Your task to perform on an android device: stop showing notifications on the lock screen Image 0: 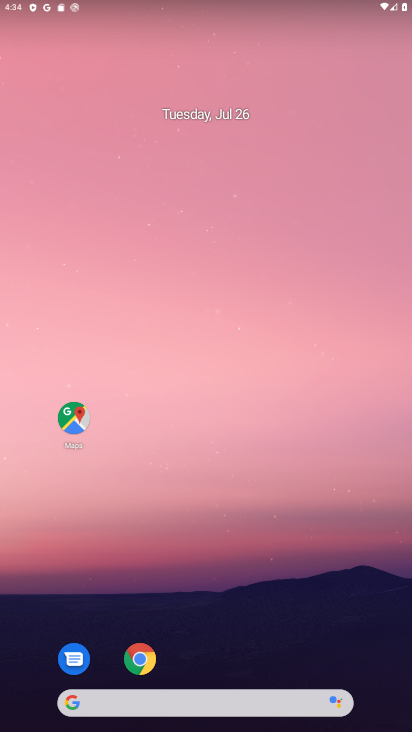
Step 0: drag from (227, 662) to (264, 57)
Your task to perform on an android device: stop showing notifications on the lock screen Image 1: 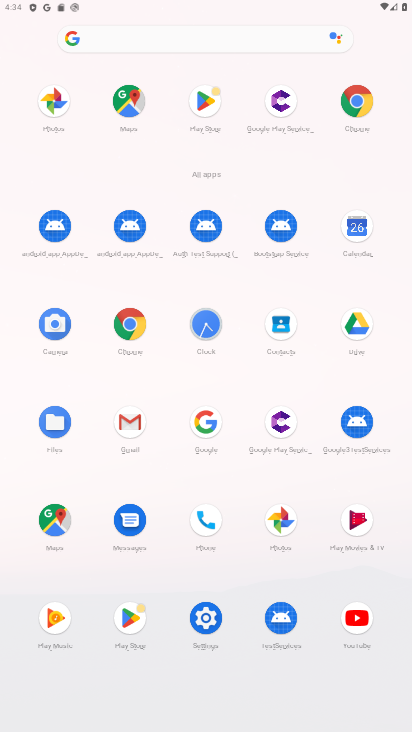
Step 1: click (201, 616)
Your task to perform on an android device: stop showing notifications on the lock screen Image 2: 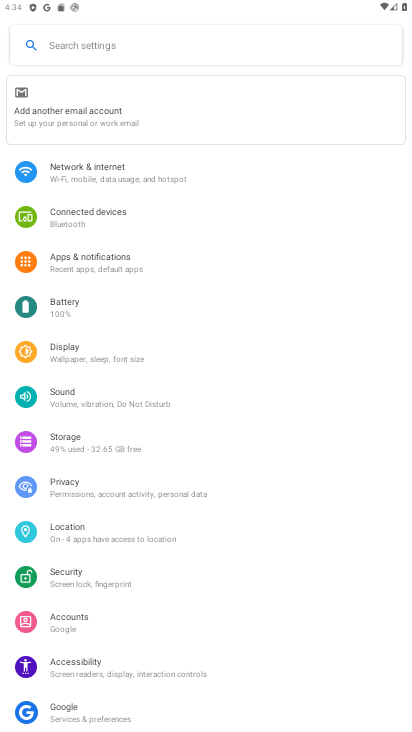
Step 2: click (106, 262)
Your task to perform on an android device: stop showing notifications on the lock screen Image 3: 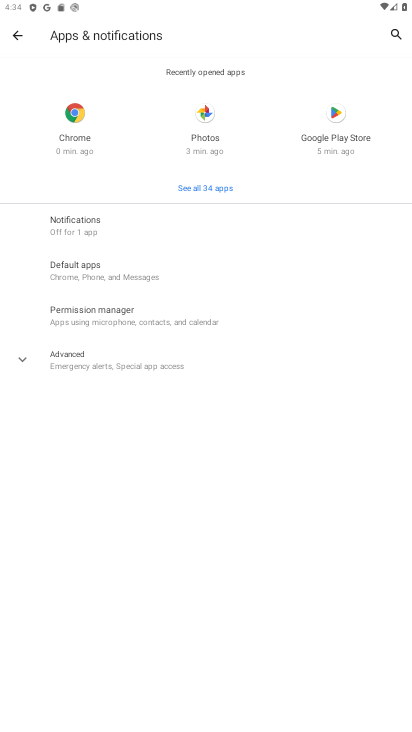
Step 3: click (114, 227)
Your task to perform on an android device: stop showing notifications on the lock screen Image 4: 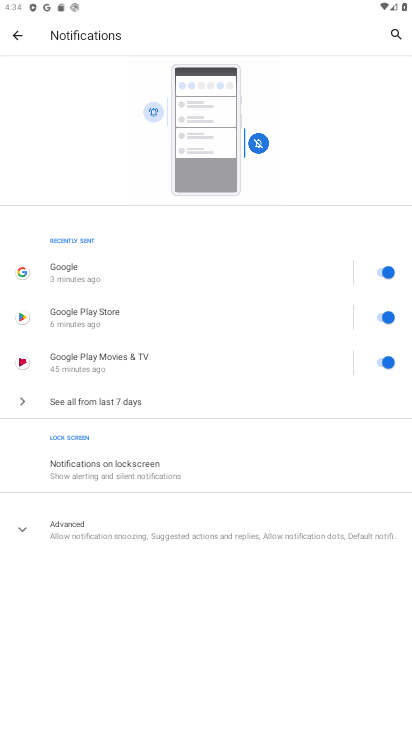
Step 4: click (65, 445)
Your task to perform on an android device: stop showing notifications on the lock screen Image 5: 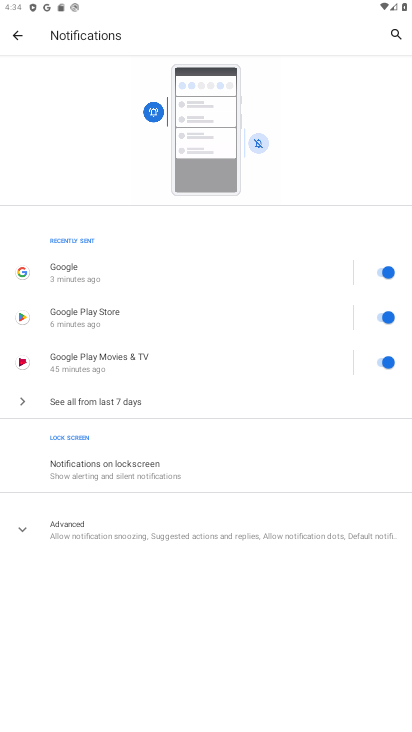
Step 5: click (111, 466)
Your task to perform on an android device: stop showing notifications on the lock screen Image 6: 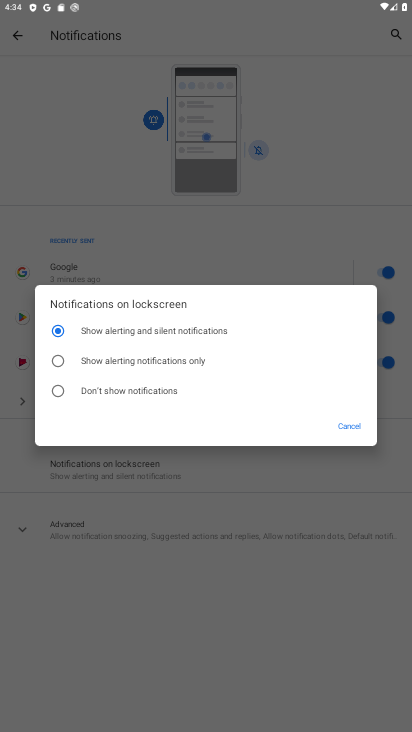
Step 6: click (50, 383)
Your task to perform on an android device: stop showing notifications on the lock screen Image 7: 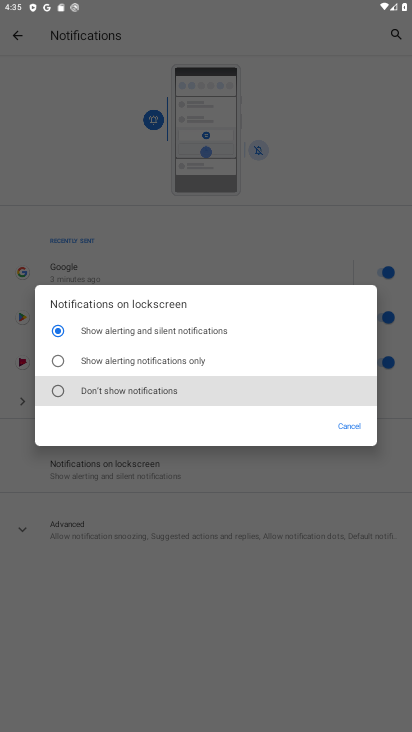
Step 7: task complete